Your task to perform on an android device: Open the Play Movies app and select the watchlist tab. Image 0: 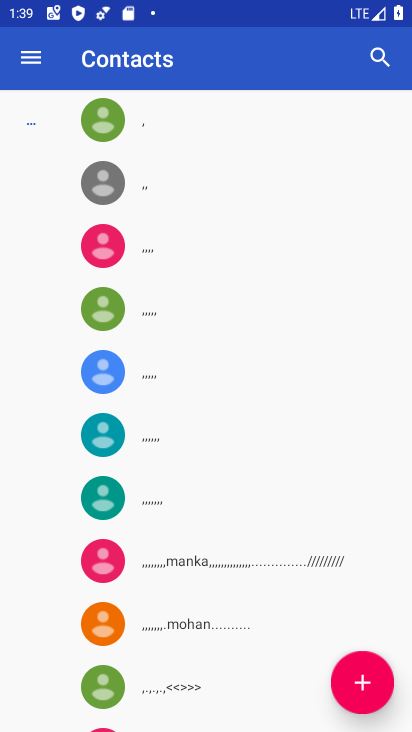
Step 0: press home button
Your task to perform on an android device: Open the Play Movies app and select the watchlist tab. Image 1: 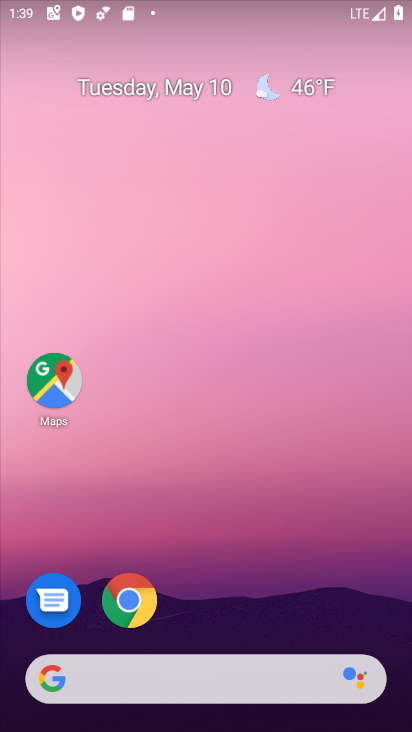
Step 1: drag from (82, 660) to (290, 206)
Your task to perform on an android device: Open the Play Movies app and select the watchlist tab. Image 2: 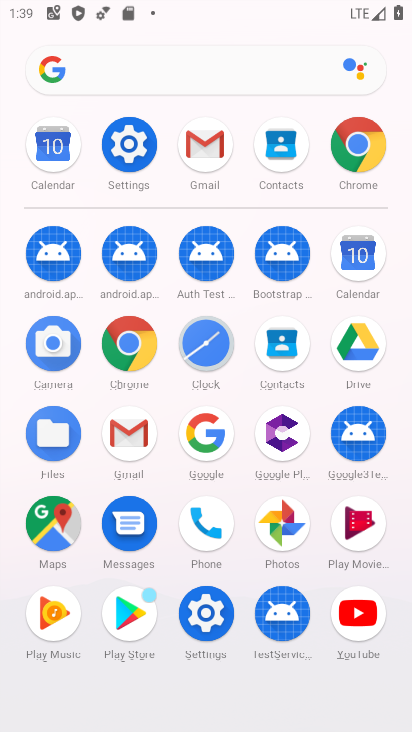
Step 2: click (349, 532)
Your task to perform on an android device: Open the Play Movies app and select the watchlist tab. Image 3: 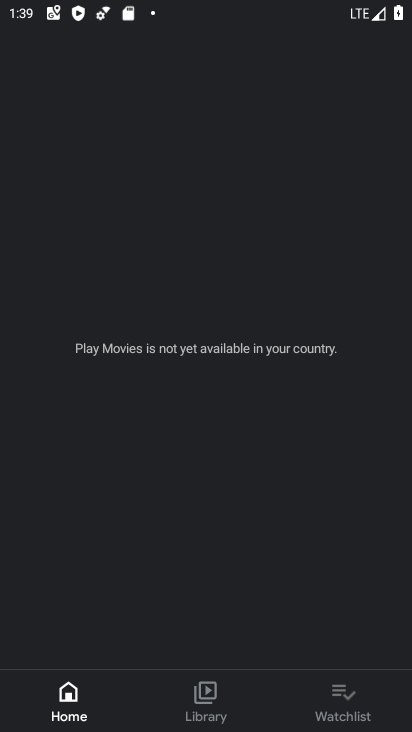
Step 3: click (341, 690)
Your task to perform on an android device: Open the Play Movies app and select the watchlist tab. Image 4: 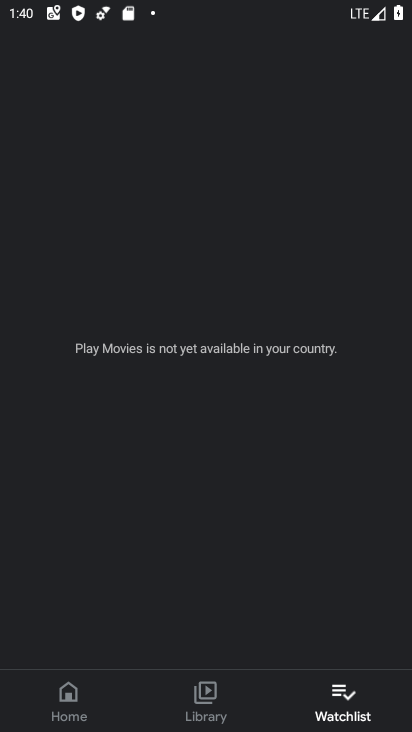
Step 4: task complete